Your task to perform on an android device: Open eBay Image 0: 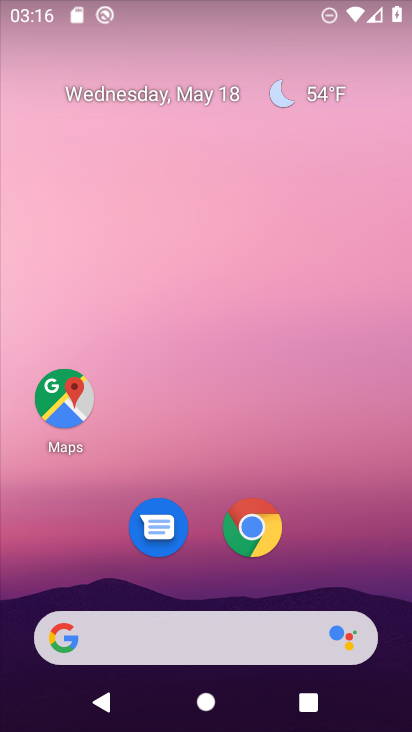
Step 0: drag from (219, 589) to (382, 559)
Your task to perform on an android device: Open eBay Image 1: 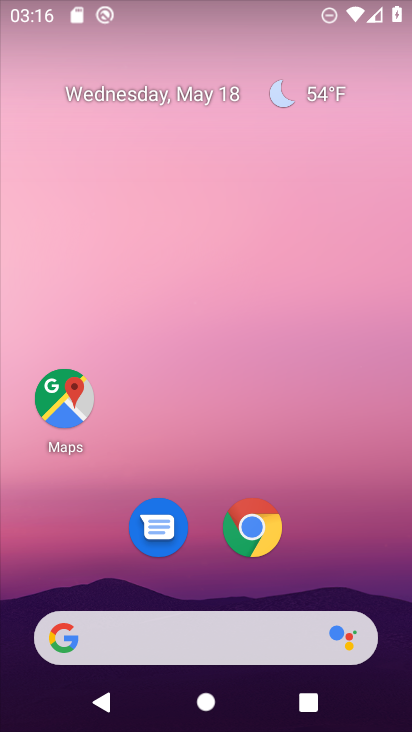
Step 1: click (189, 643)
Your task to perform on an android device: Open eBay Image 2: 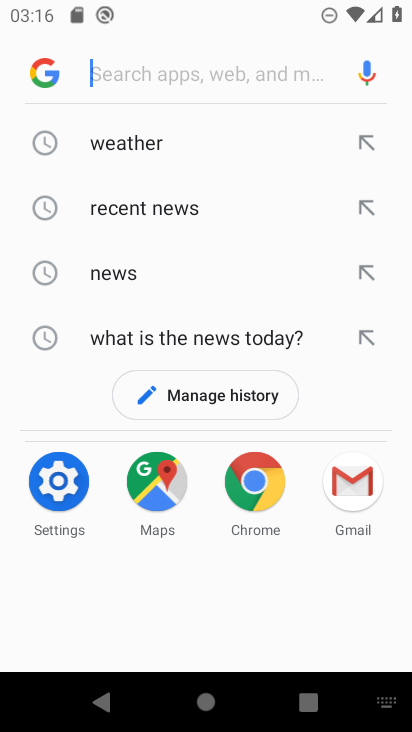
Step 2: click (272, 509)
Your task to perform on an android device: Open eBay Image 3: 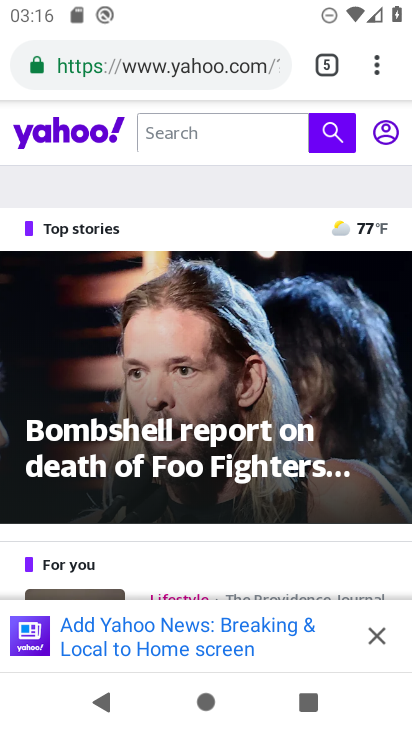
Step 3: click (315, 62)
Your task to perform on an android device: Open eBay Image 4: 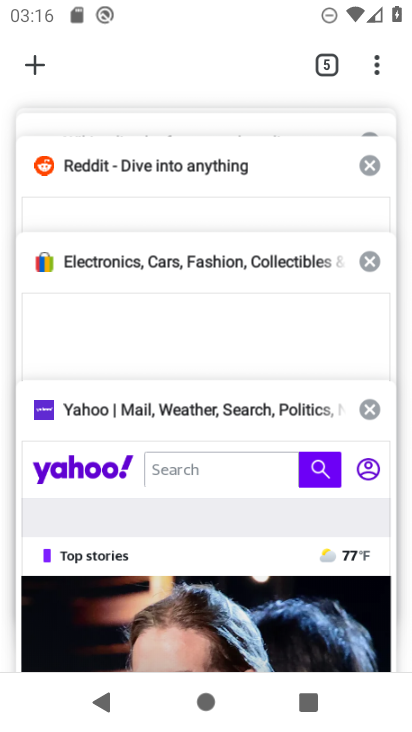
Step 4: click (29, 65)
Your task to perform on an android device: Open eBay Image 5: 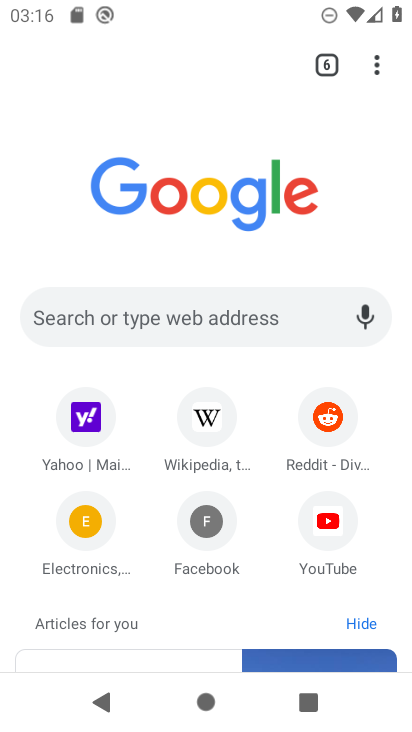
Step 5: click (94, 530)
Your task to perform on an android device: Open eBay Image 6: 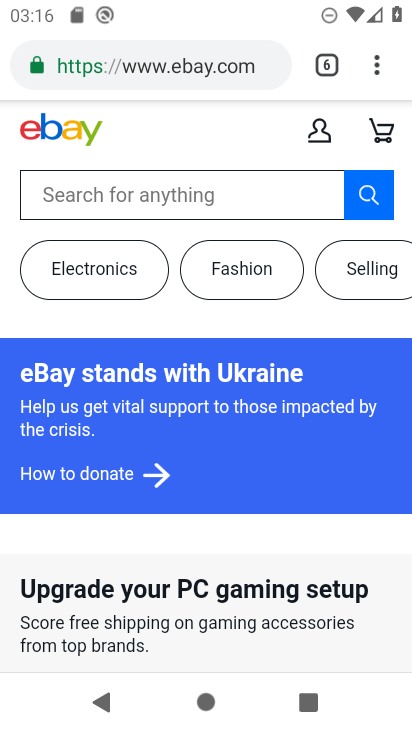
Step 6: task complete